Your task to perform on an android device: Is it going to rain today? Image 0: 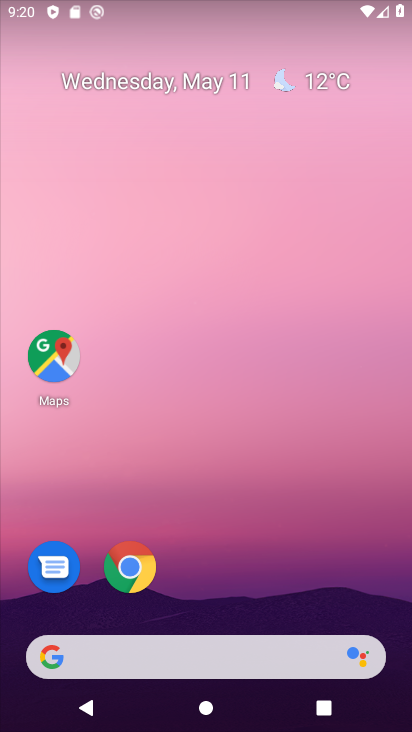
Step 0: click (119, 569)
Your task to perform on an android device: Is it going to rain today? Image 1: 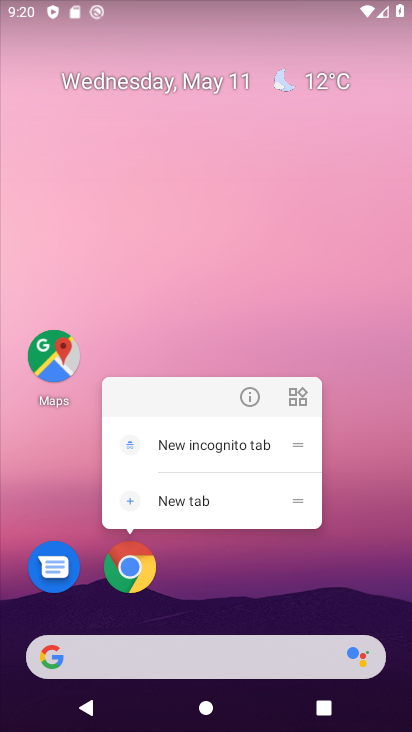
Step 1: click (254, 393)
Your task to perform on an android device: Is it going to rain today? Image 2: 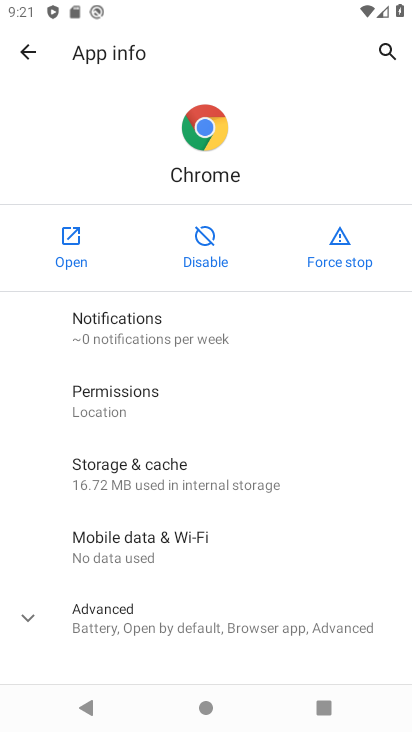
Step 2: click (64, 238)
Your task to perform on an android device: Is it going to rain today? Image 3: 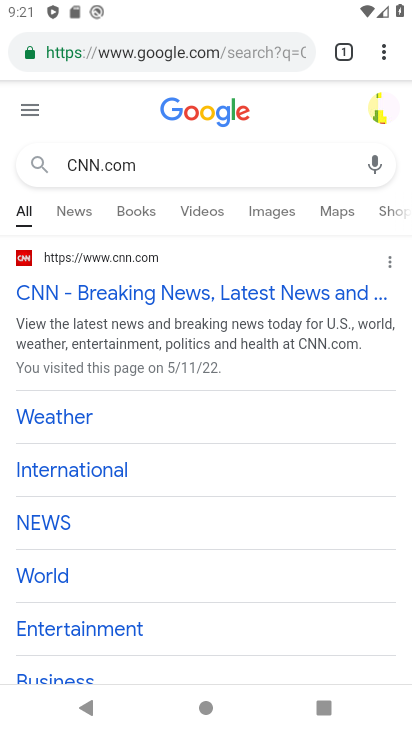
Step 3: click (130, 53)
Your task to perform on an android device: Is it going to rain today? Image 4: 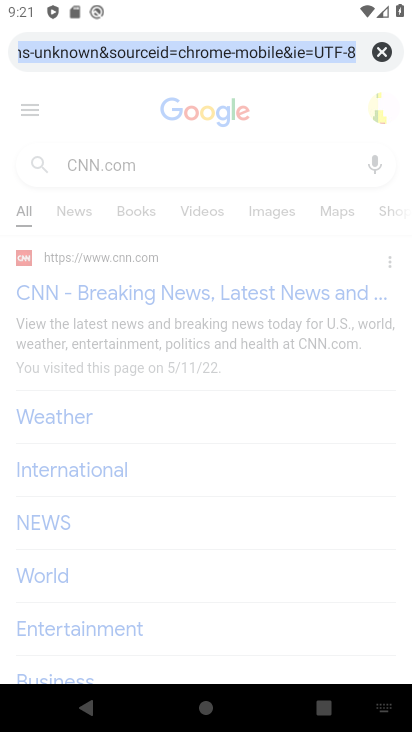
Step 4: type "Is it going to rain today?"
Your task to perform on an android device: Is it going to rain today? Image 5: 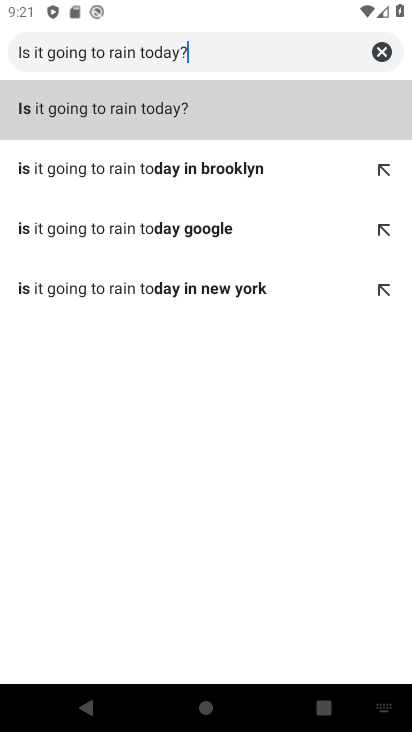
Step 5: click (187, 111)
Your task to perform on an android device: Is it going to rain today? Image 6: 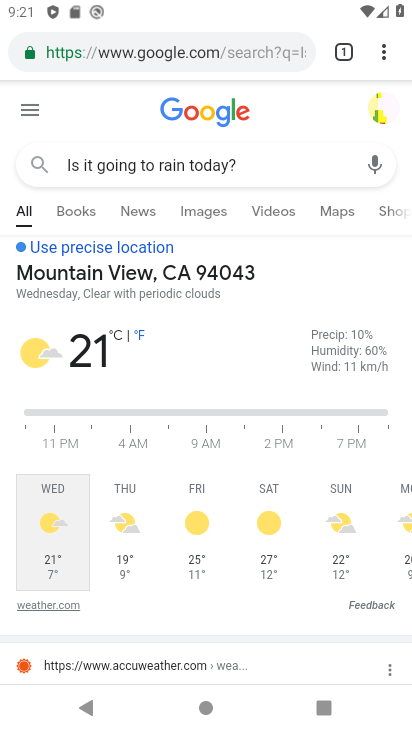
Step 6: task complete